Your task to perform on an android device: What are the new products by Samsung? Image 0: 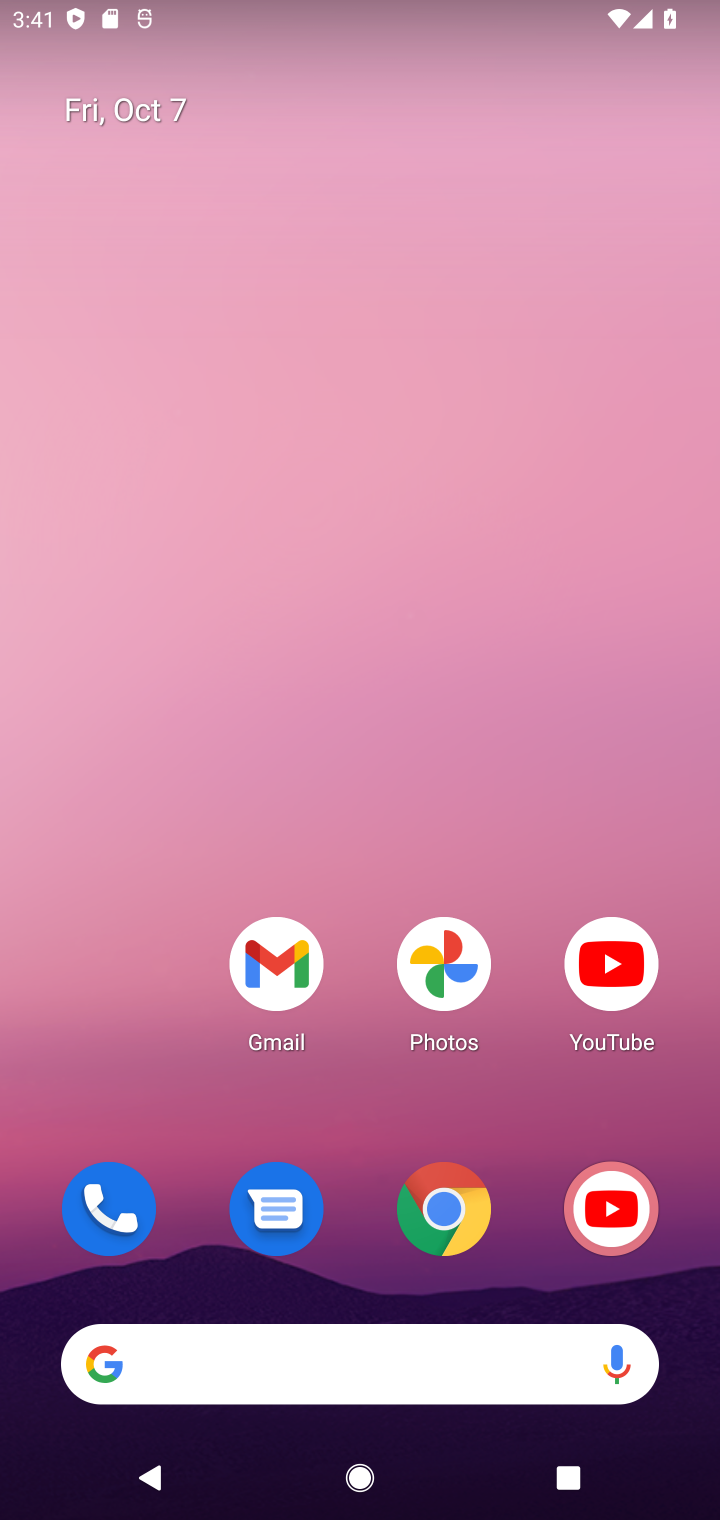
Step 0: click (356, 1374)
Your task to perform on an android device: What are the new products by Samsung? Image 1: 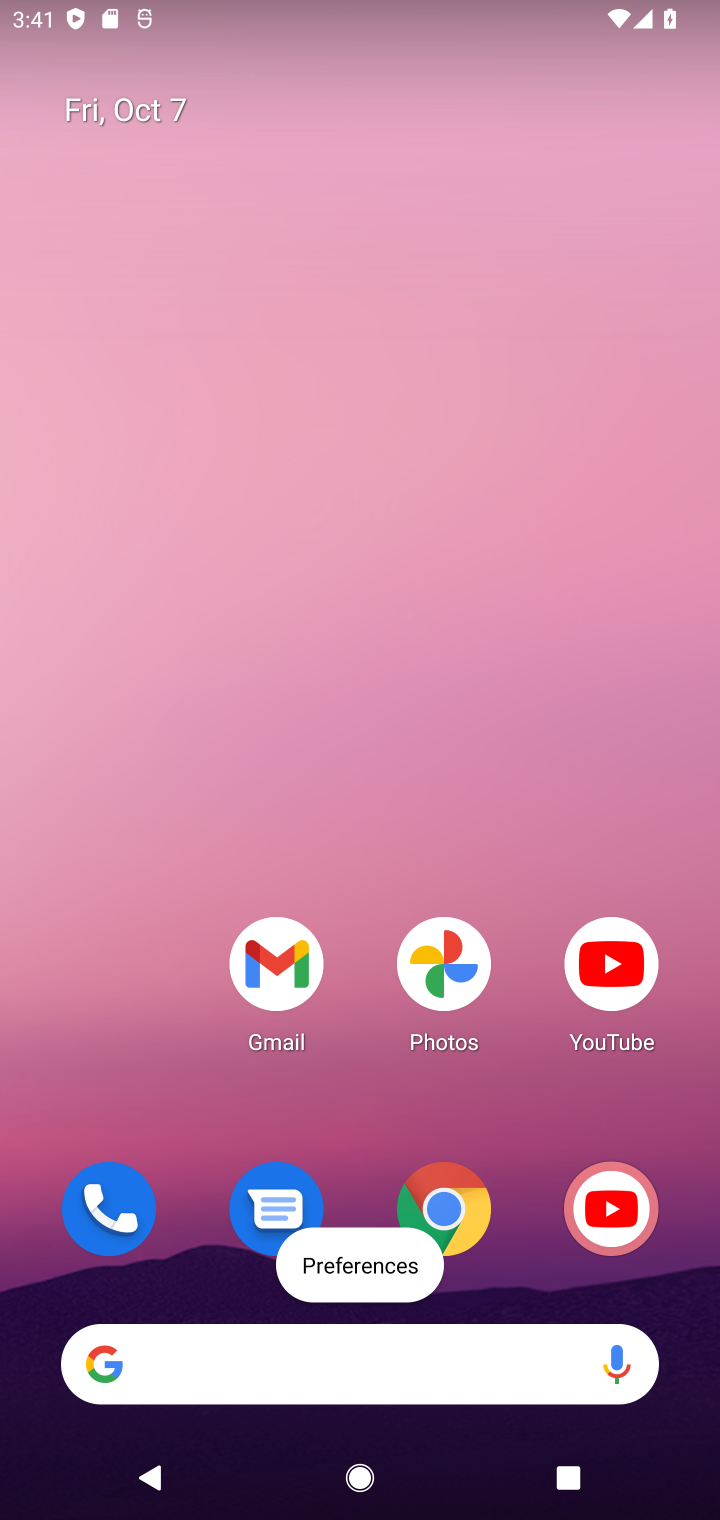
Step 1: click (190, 1374)
Your task to perform on an android device: What are the new products by Samsung? Image 2: 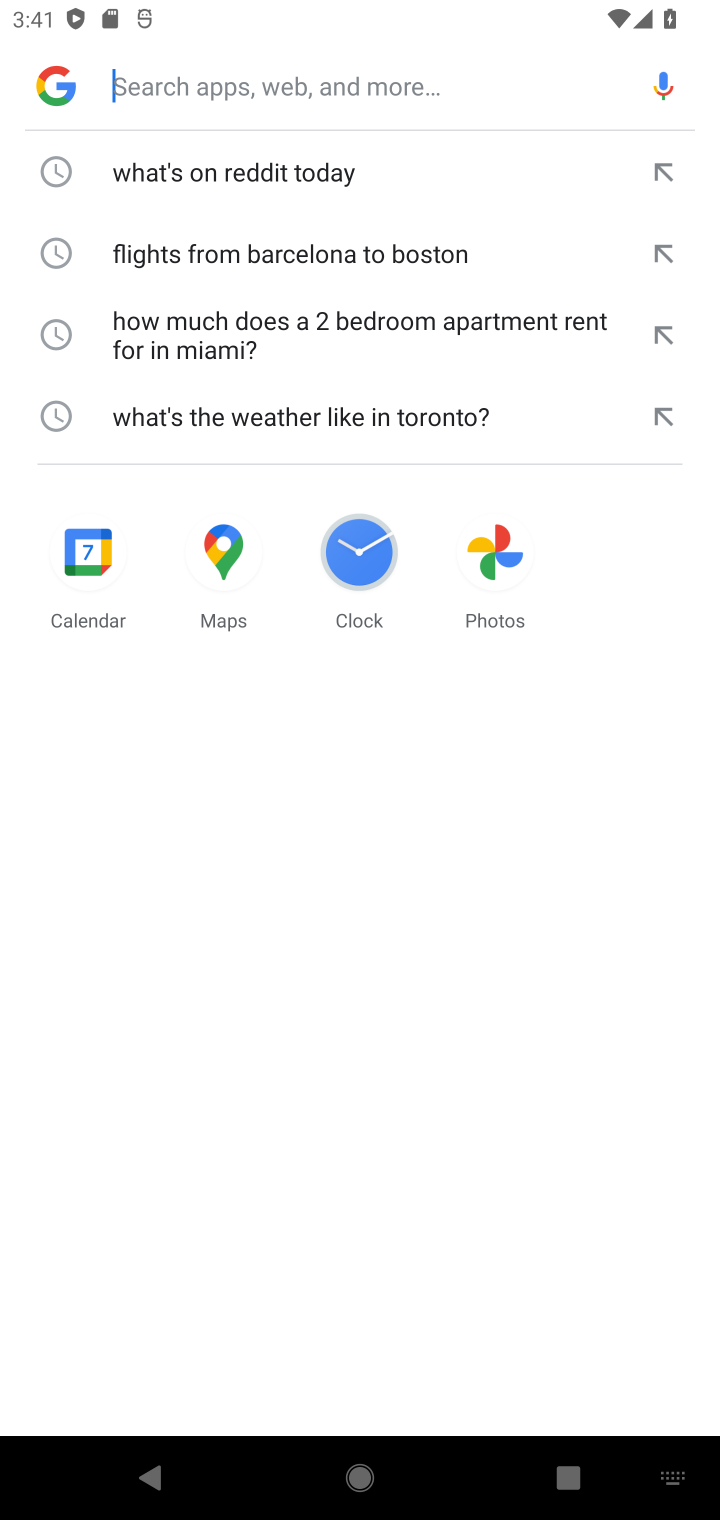
Step 2: type "What are the new products by Samsung?"
Your task to perform on an android device: What are the new products by Samsung? Image 3: 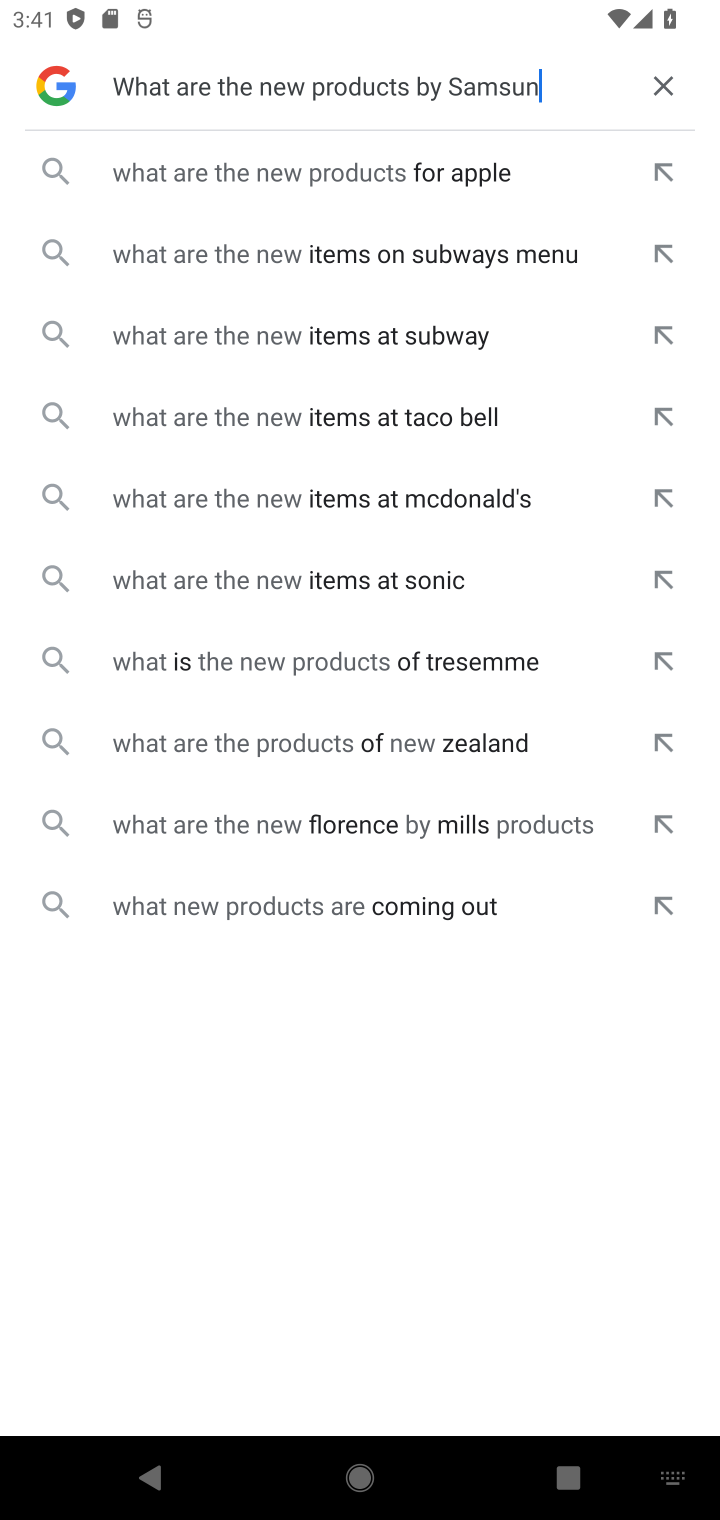
Step 3: press enter
Your task to perform on an android device: What are the new products by Samsung? Image 4: 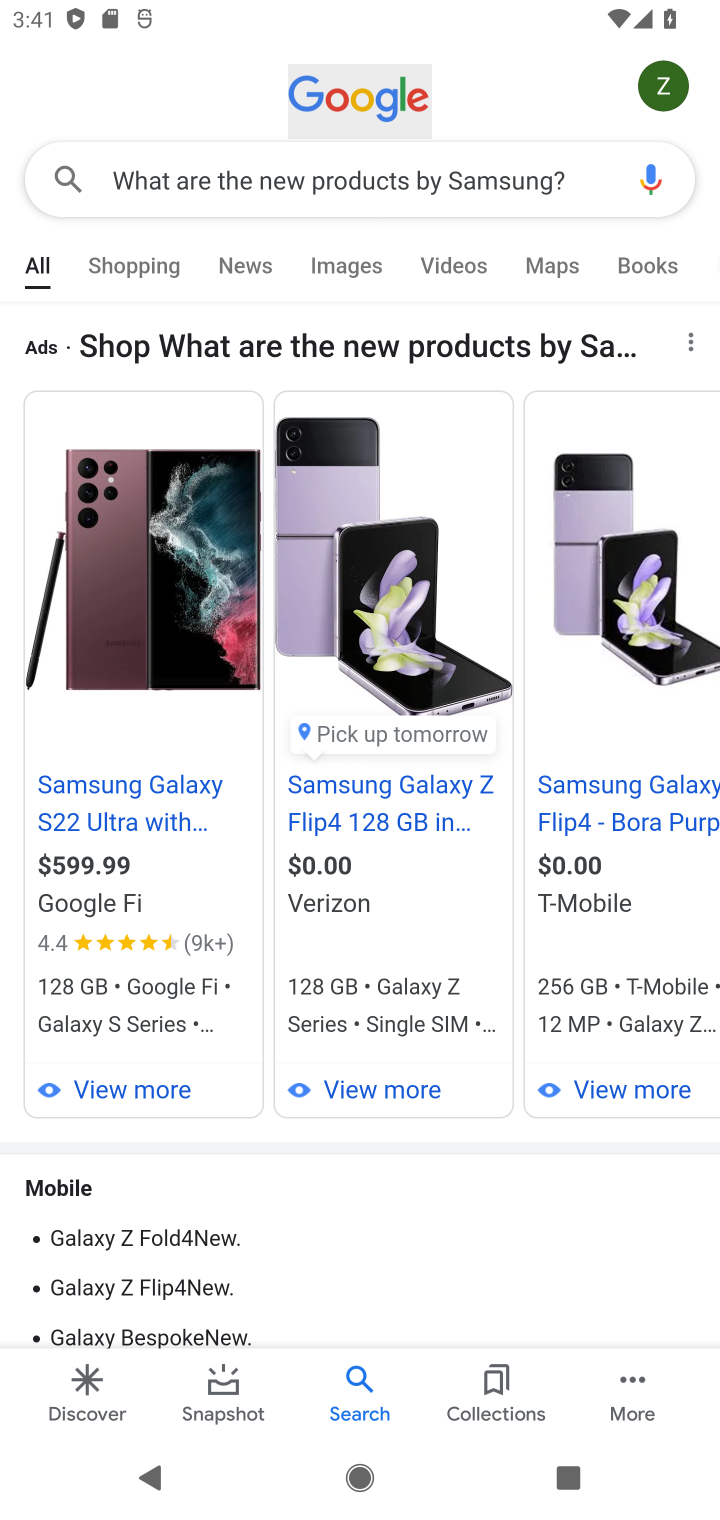
Step 4: drag from (417, 1220) to (427, 778)
Your task to perform on an android device: What are the new products by Samsung? Image 5: 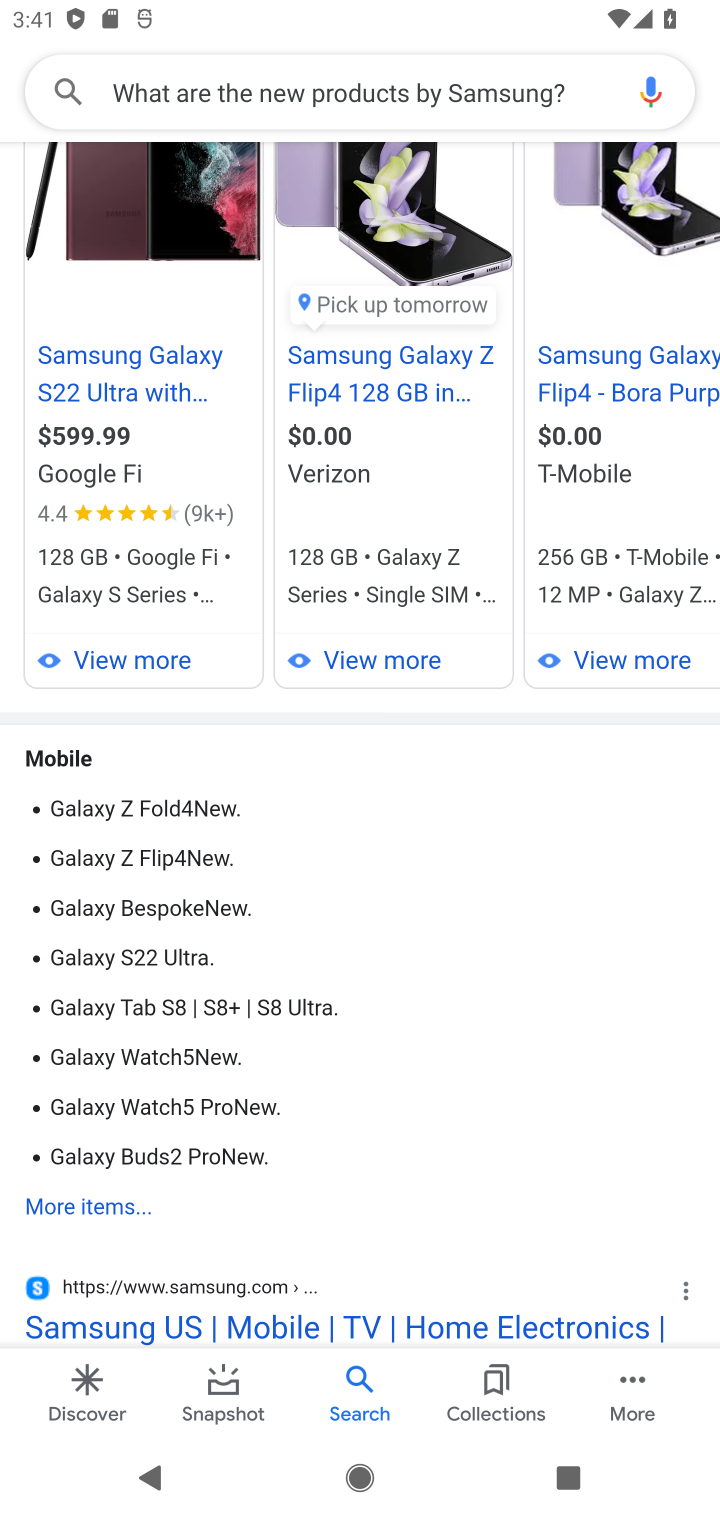
Step 5: drag from (422, 1121) to (436, 786)
Your task to perform on an android device: What are the new products by Samsung? Image 6: 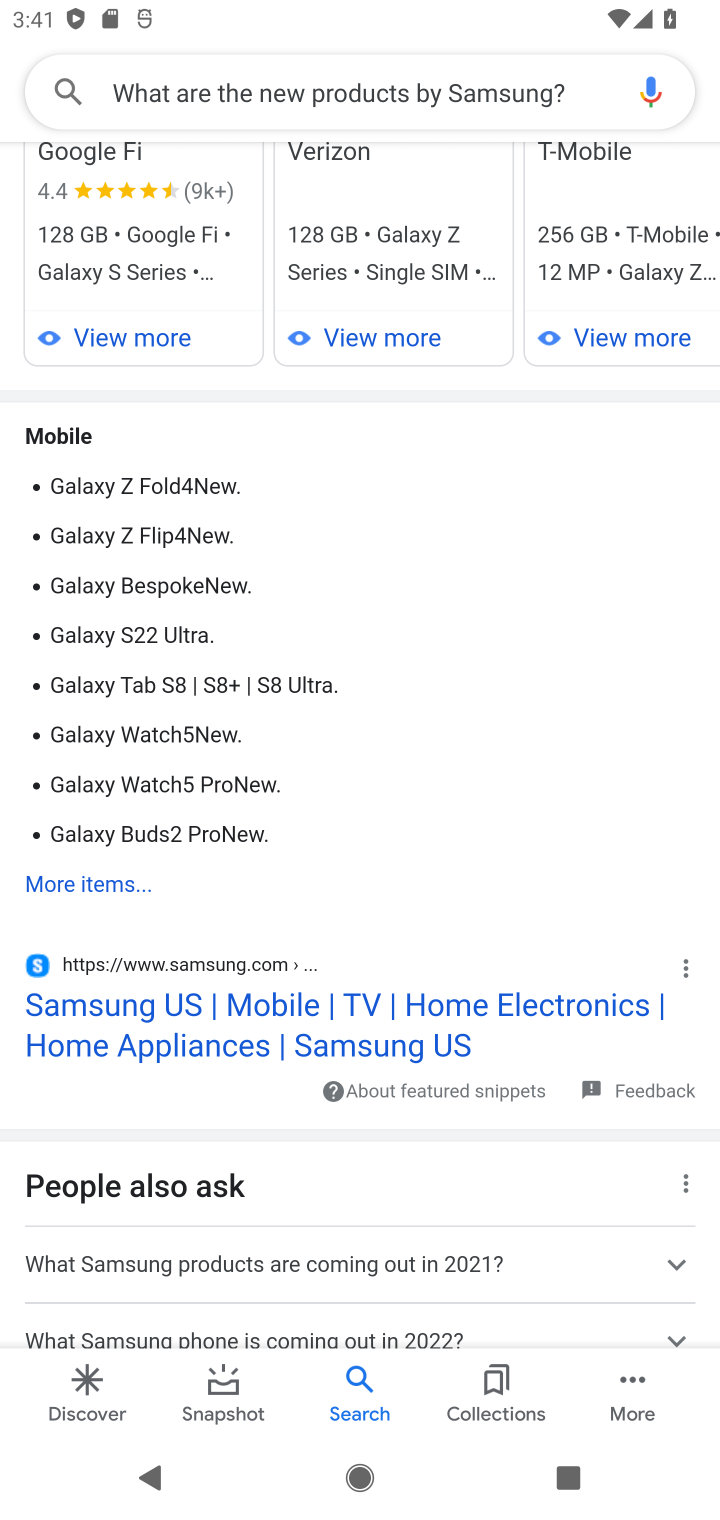
Step 6: drag from (357, 1156) to (404, 623)
Your task to perform on an android device: What are the new products by Samsung? Image 7: 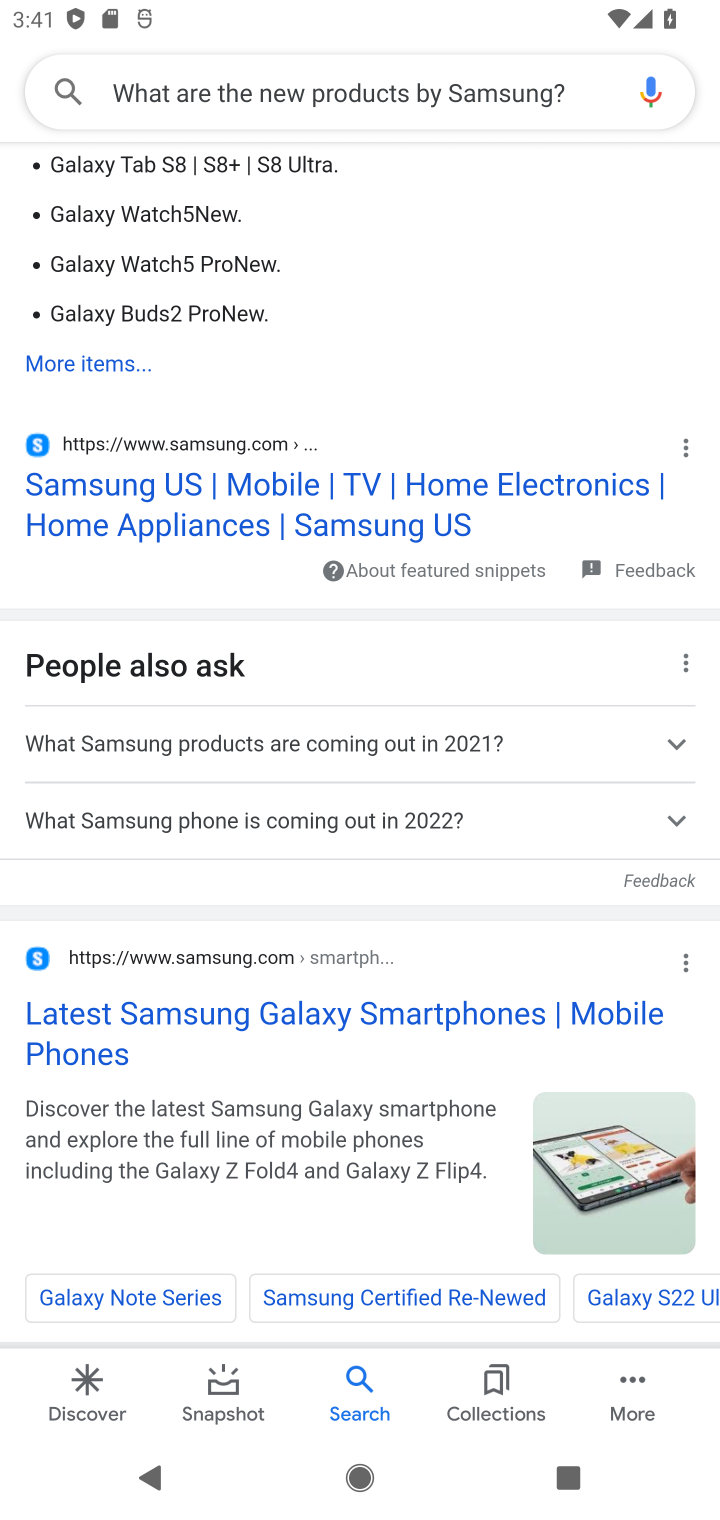
Step 7: drag from (408, 1167) to (406, 760)
Your task to perform on an android device: What are the new products by Samsung? Image 8: 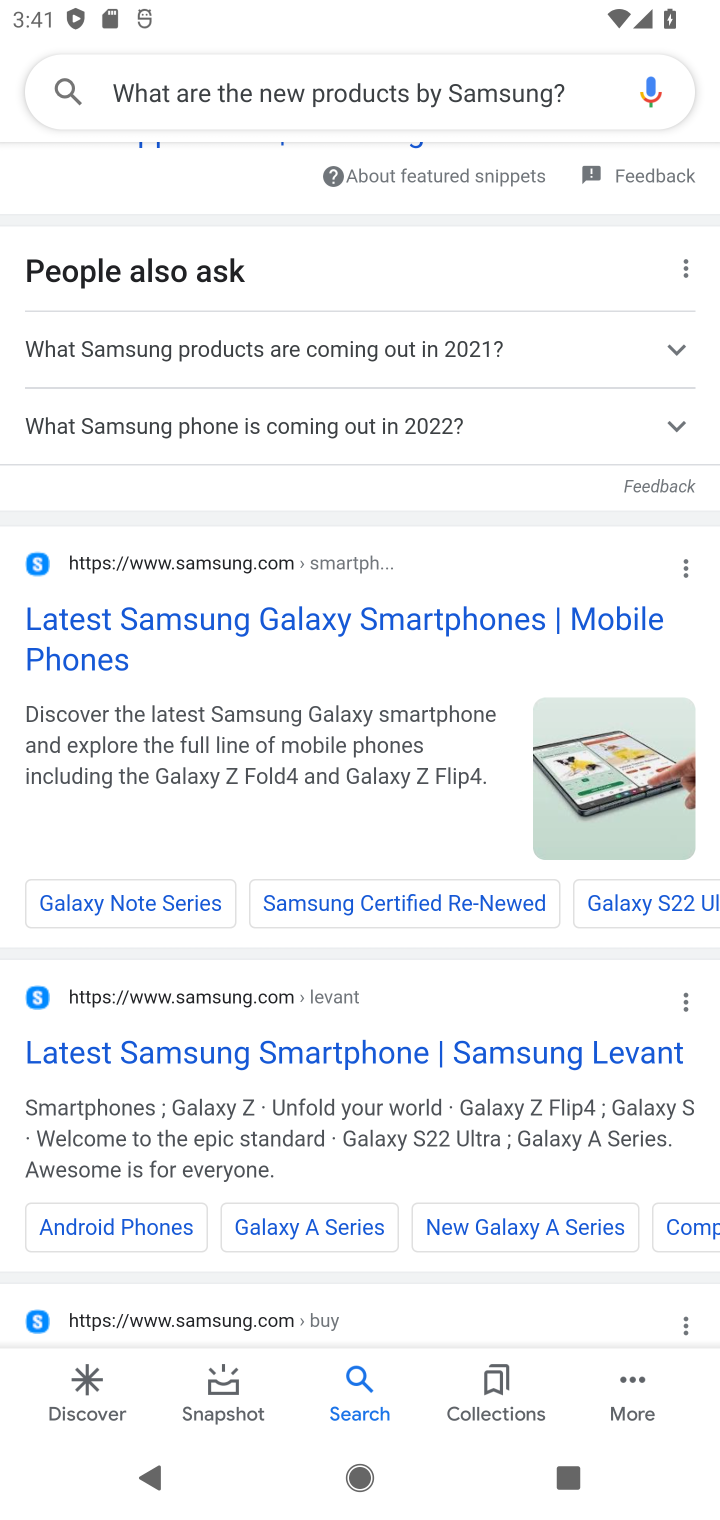
Step 8: click (332, 616)
Your task to perform on an android device: What are the new products by Samsung? Image 9: 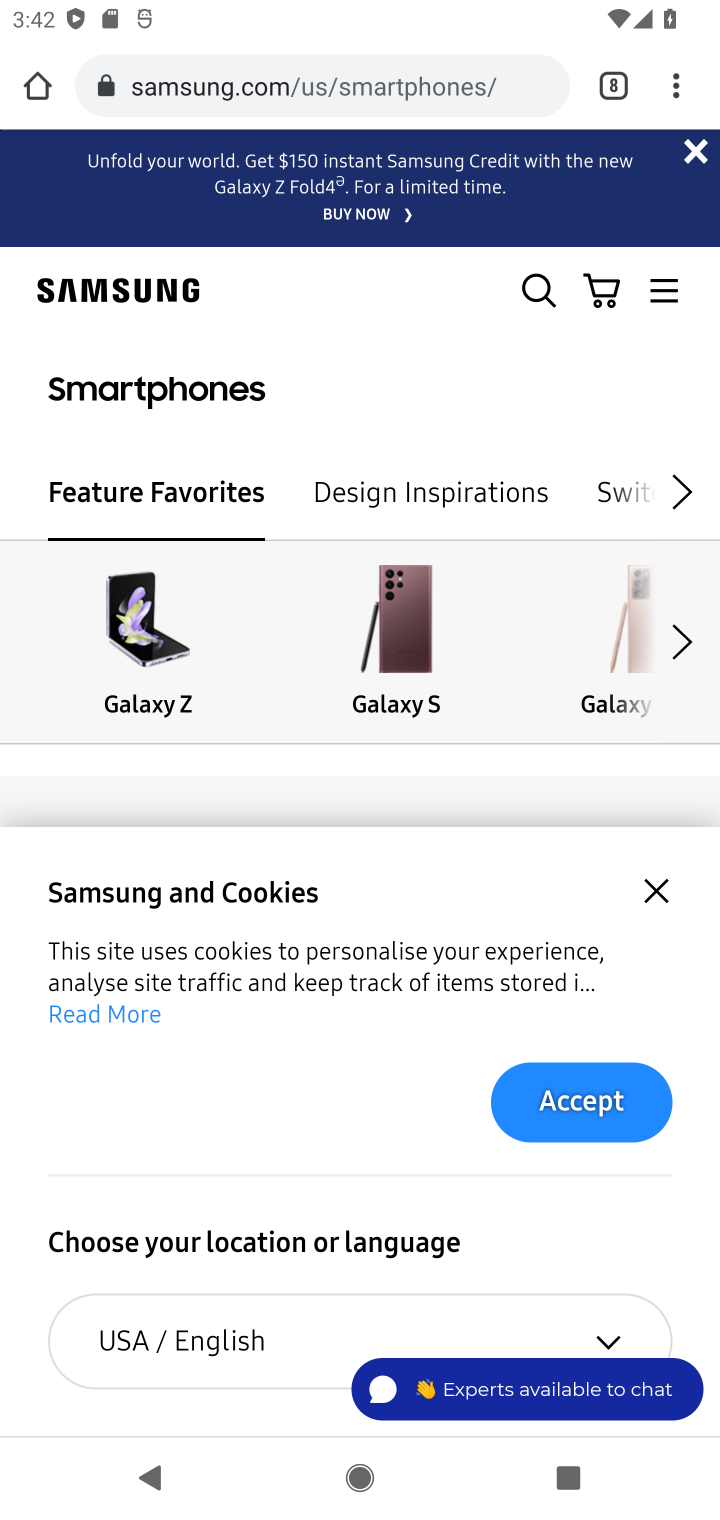
Step 9: click (598, 1103)
Your task to perform on an android device: What are the new products by Samsung? Image 10: 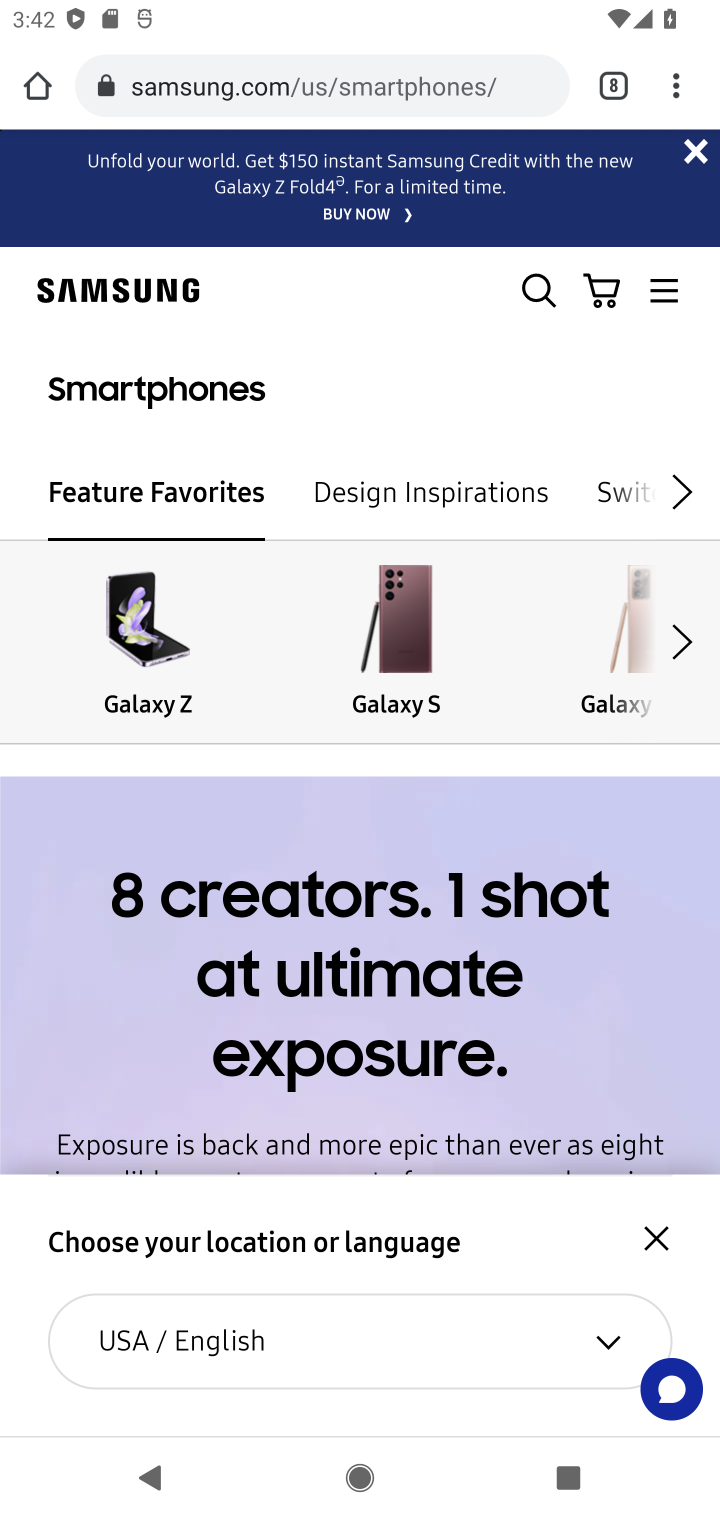
Step 10: click (656, 1238)
Your task to perform on an android device: What are the new products by Samsung? Image 11: 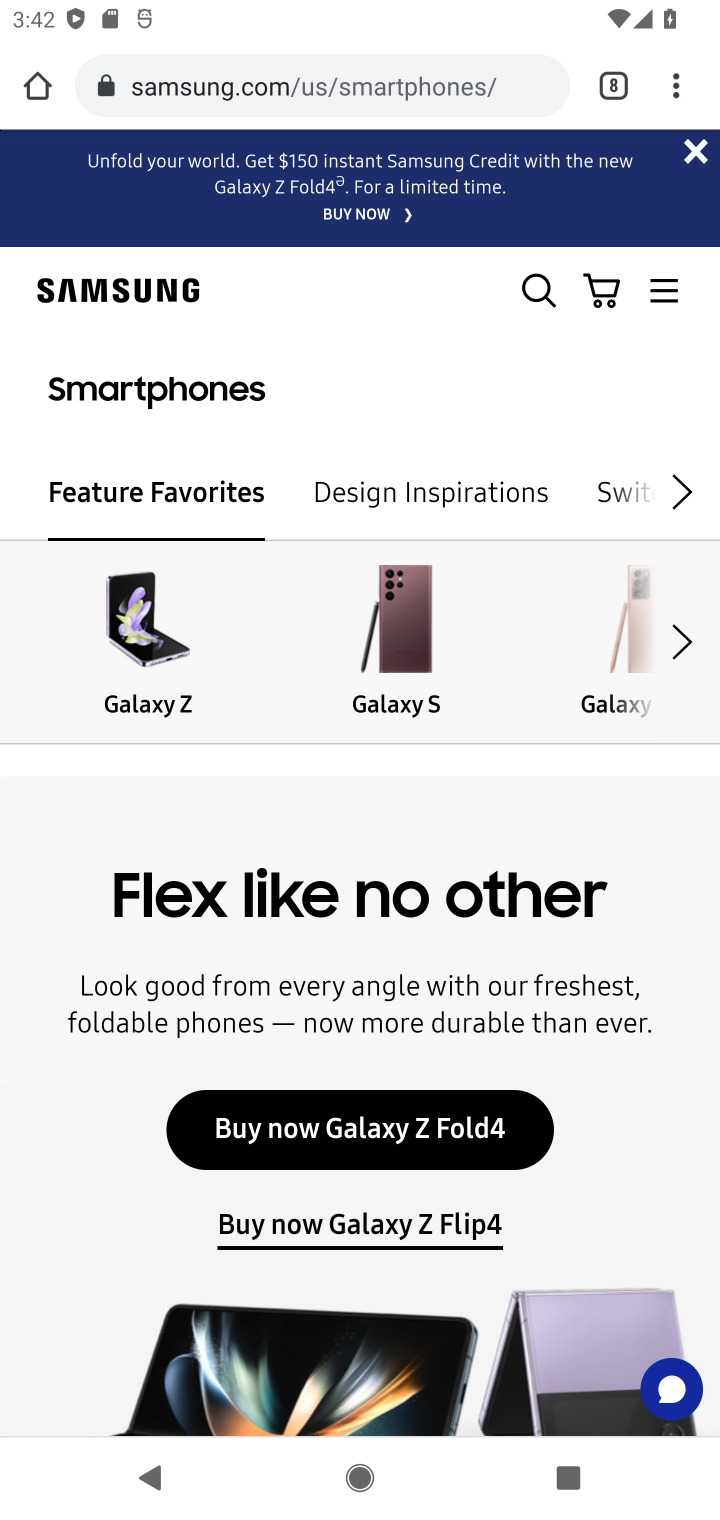
Step 11: task complete